Your task to perform on an android device: turn off sleep mode Image 0: 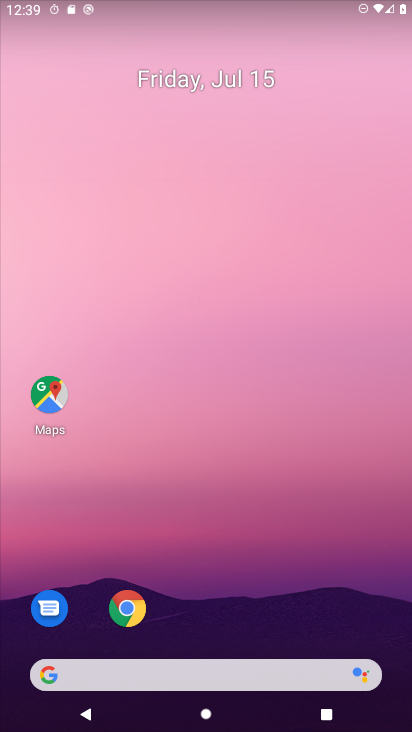
Step 0: drag from (210, 685) to (235, 0)
Your task to perform on an android device: turn off sleep mode Image 1: 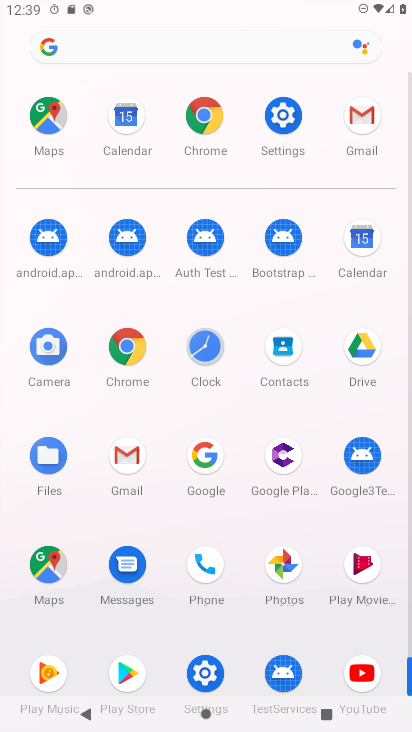
Step 1: click (288, 108)
Your task to perform on an android device: turn off sleep mode Image 2: 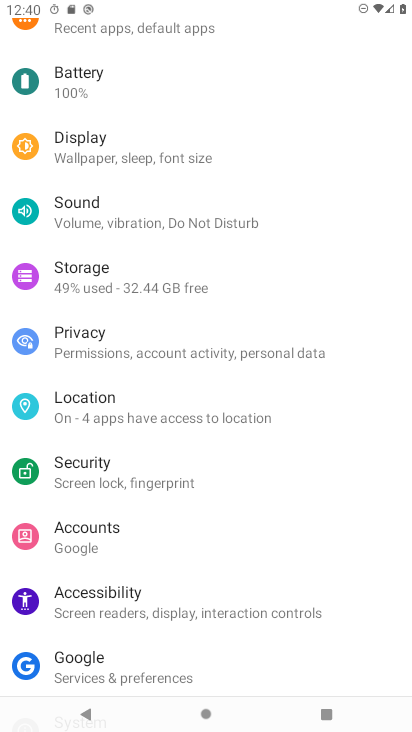
Step 2: click (145, 153)
Your task to perform on an android device: turn off sleep mode Image 3: 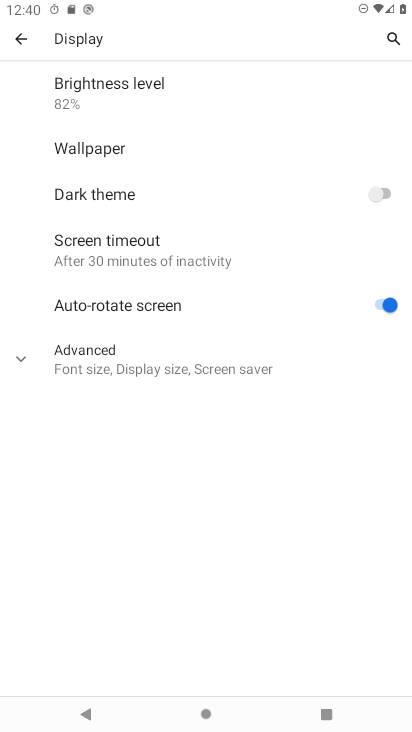
Step 3: task complete